Your task to perform on an android device: What's the weather going to be this weekend? Image 0: 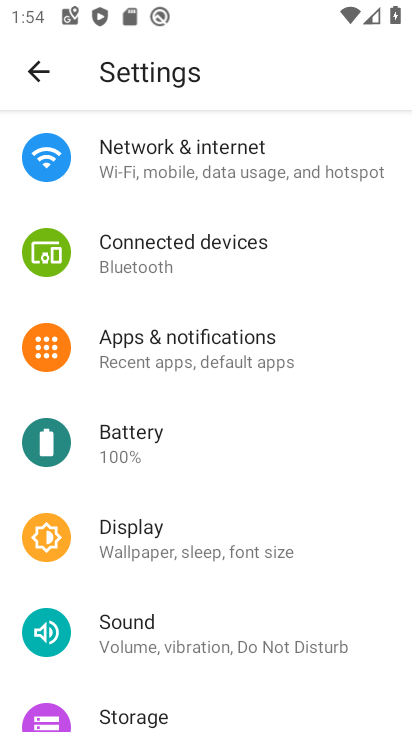
Step 0: press home button
Your task to perform on an android device: What's the weather going to be this weekend? Image 1: 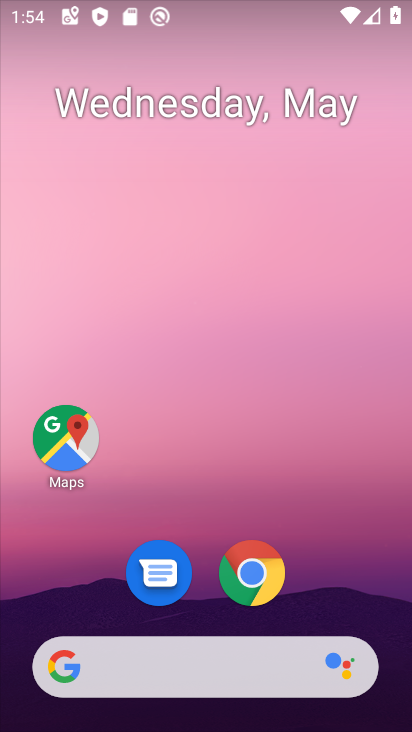
Step 1: click (165, 662)
Your task to perform on an android device: What's the weather going to be this weekend? Image 2: 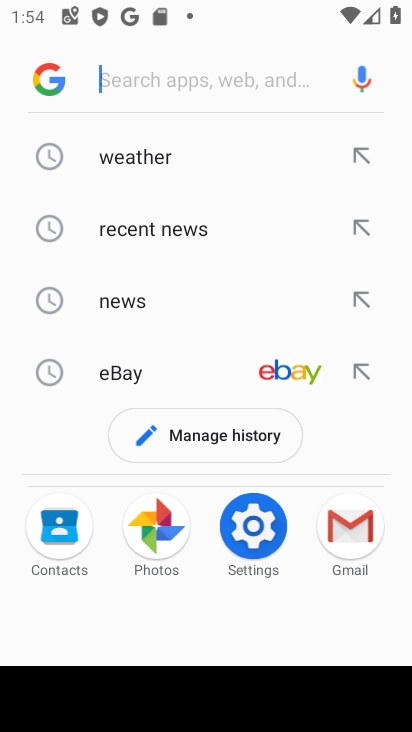
Step 2: type "what's the weather going to be this weekend"
Your task to perform on an android device: What's the weather going to be this weekend? Image 3: 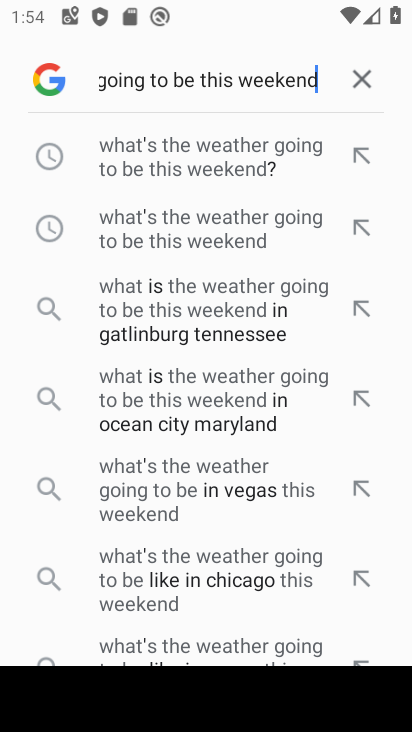
Step 3: click (206, 165)
Your task to perform on an android device: What's the weather going to be this weekend? Image 4: 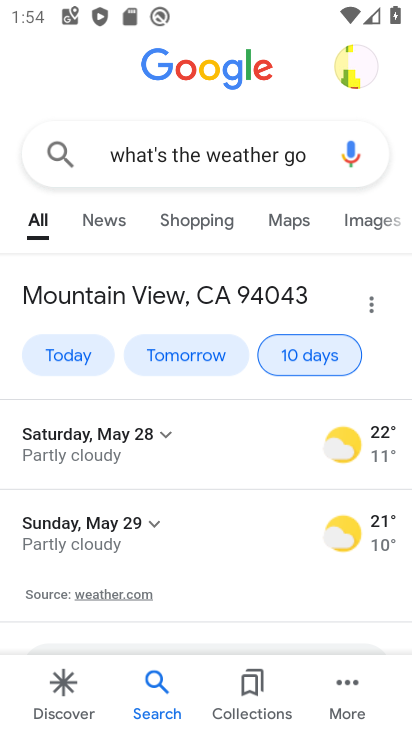
Step 4: task complete